Your task to perform on an android device: read, delete, or share a saved page in the chrome app Image 0: 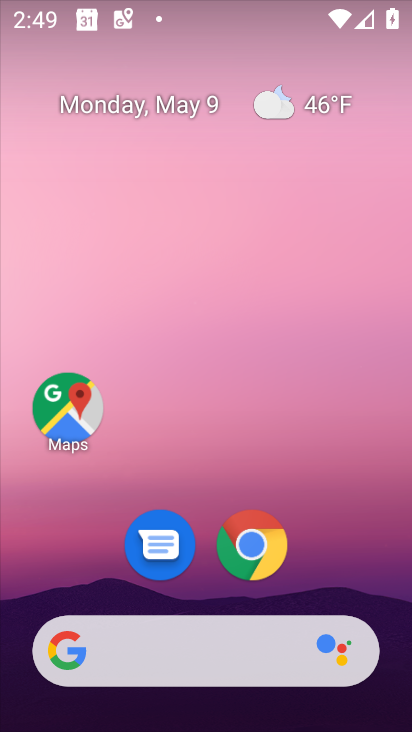
Step 0: click (255, 539)
Your task to perform on an android device: read, delete, or share a saved page in the chrome app Image 1: 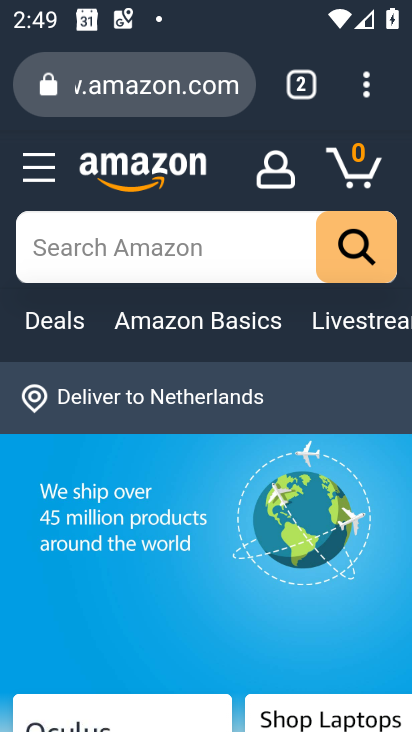
Step 1: drag from (361, 85) to (162, 556)
Your task to perform on an android device: read, delete, or share a saved page in the chrome app Image 2: 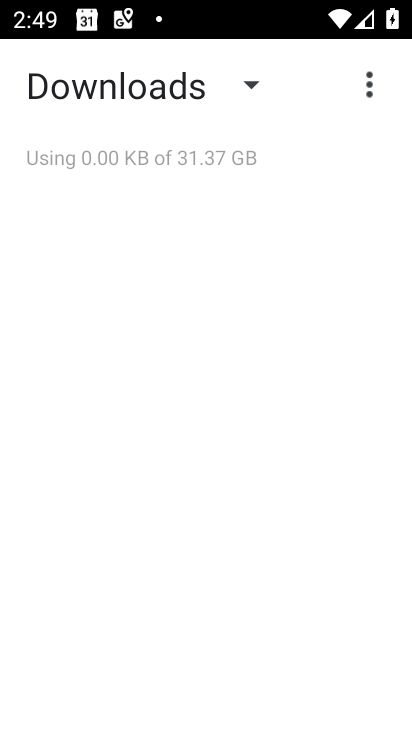
Step 2: click (226, 87)
Your task to perform on an android device: read, delete, or share a saved page in the chrome app Image 3: 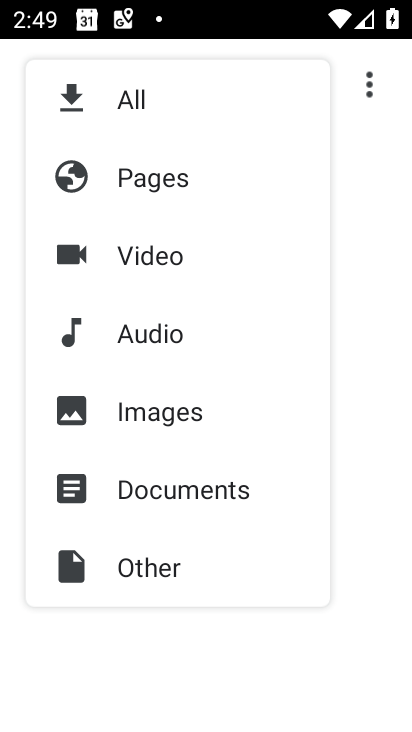
Step 3: click (177, 186)
Your task to perform on an android device: read, delete, or share a saved page in the chrome app Image 4: 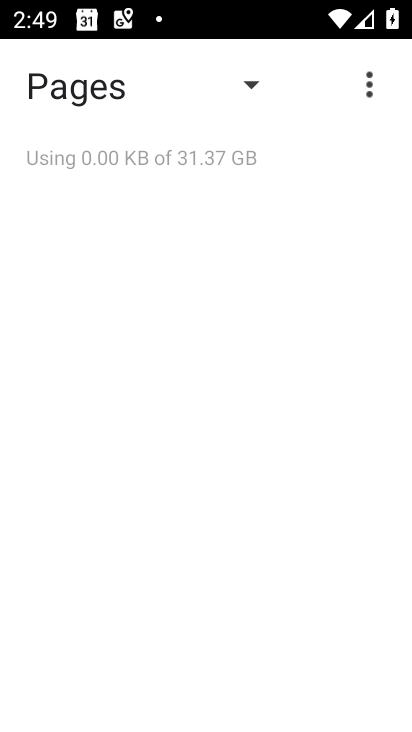
Step 4: task complete